Your task to perform on an android device: manage bookmarks in the chrome app Image 0: 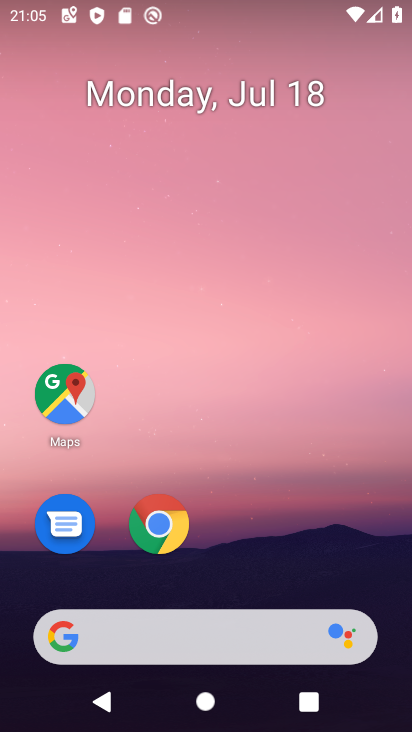
Step 0: click (167, 523)
Your task to perform on an android device: manage bookmarks in the chrome app Image 1: 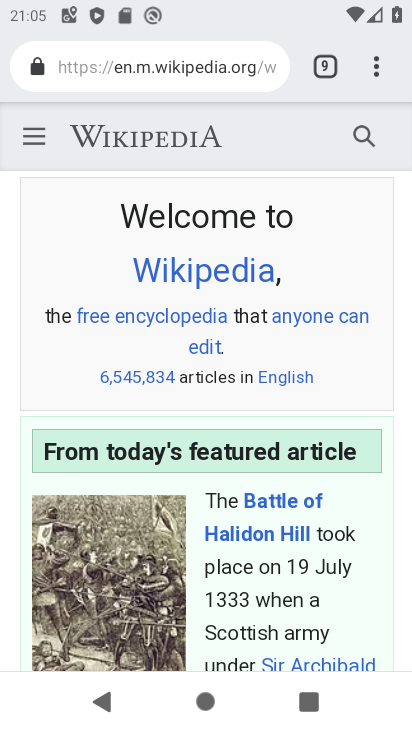
Step 1: click (374, 72)
Your task to perform on an android device: manage bookmarks in the chrome app Image 2: 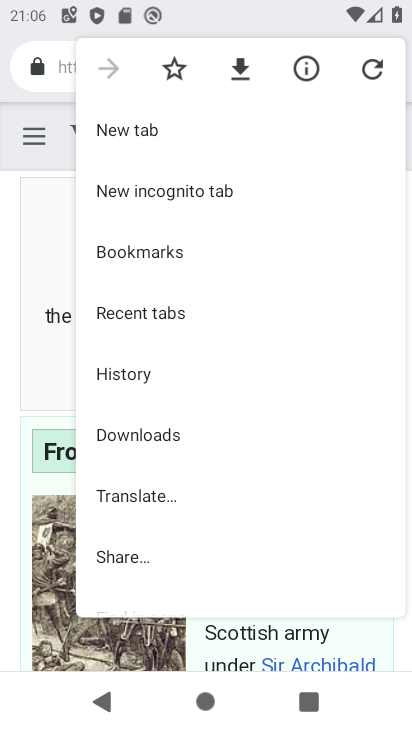
Step 2: click (191, 254)
Your task to perform on an android device: manage bookmarks in the chrome app Image 3: 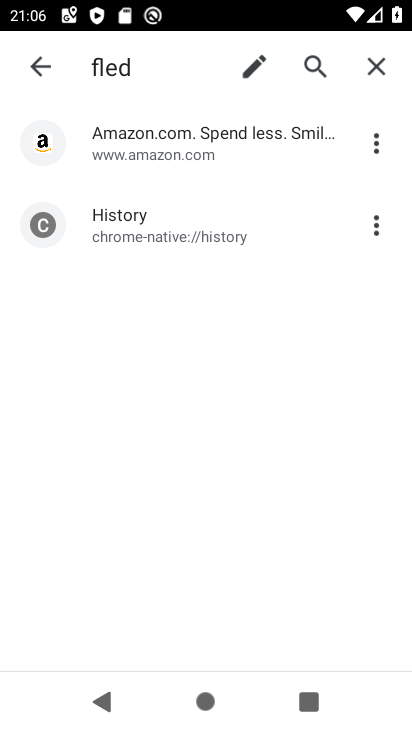
Step 3: click (376, 141)
Your task to perform on an android device: manage bookmarks in the chrome app Image 4: 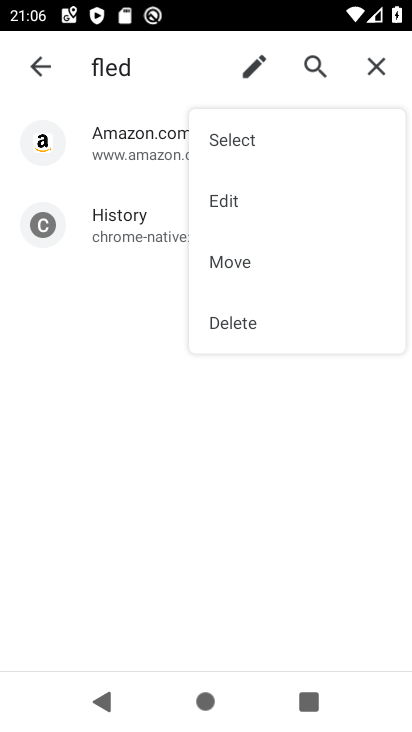
Step 4: click (272, 193)
Your task to perform on an android device: manage bookmarks in the chrome app Image 5: 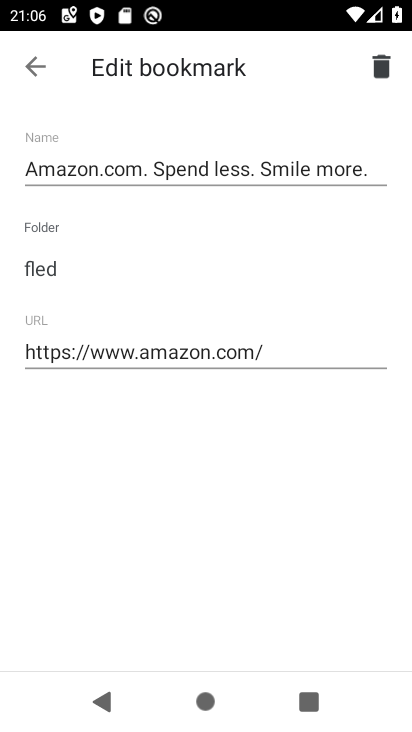
Step 5: task complete